Your task to perform on an android device: delete browsing data in the chrome app Image 0: 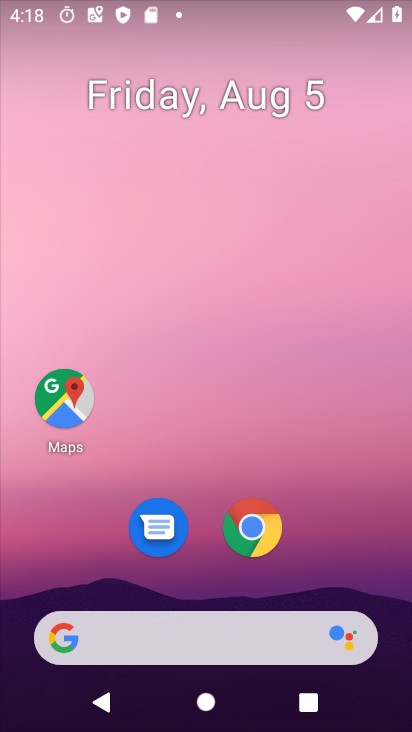
Step 0: click (257, 525)
Your task to perform on an android device: delete browsing data in the chrome app Image 1: 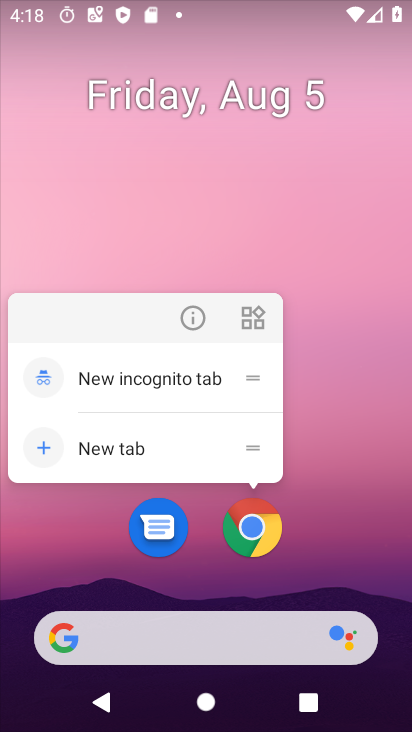
Step 1: click (249, 519)
Your task to perform on an android device: delete browsing data in the chrome app Image 2: 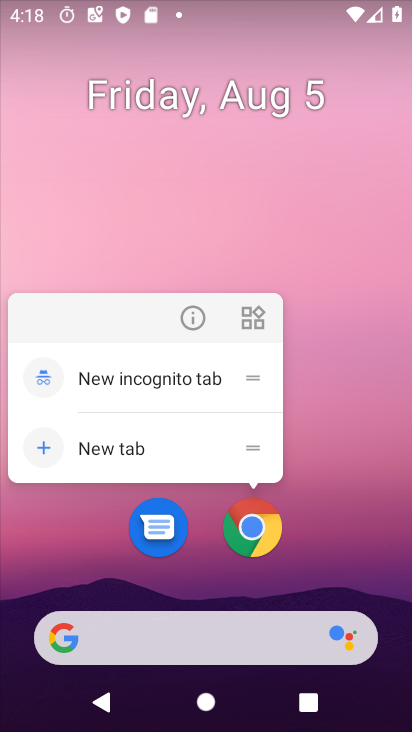
Step 2: click (251, 513)
Your task to perform on an android device: delete browsing data in the chrome app Image 3: 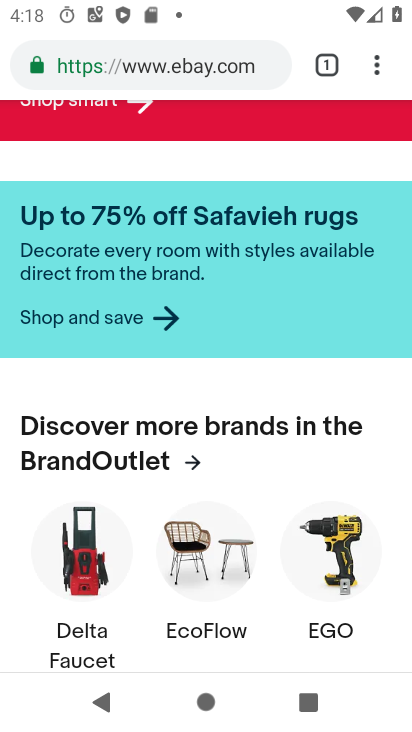
Step 3: click (376, 56)
Your task to perform on an android device: delete browsing data in the chrome app Image 4: 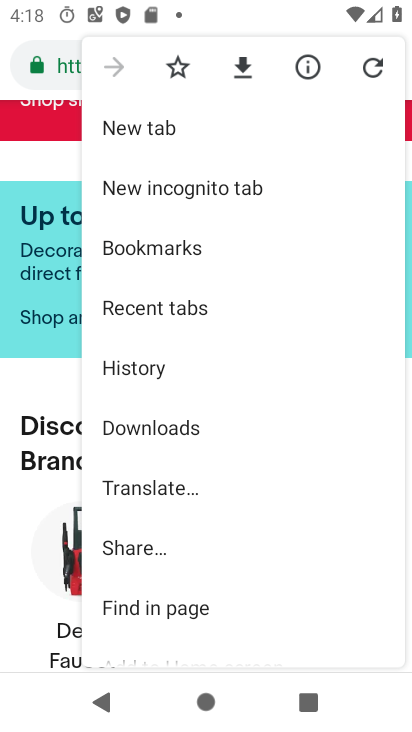
Step 4: click (181, 368)
Your task to perform on an android device: delete browsing data in the chrome app Image 5: 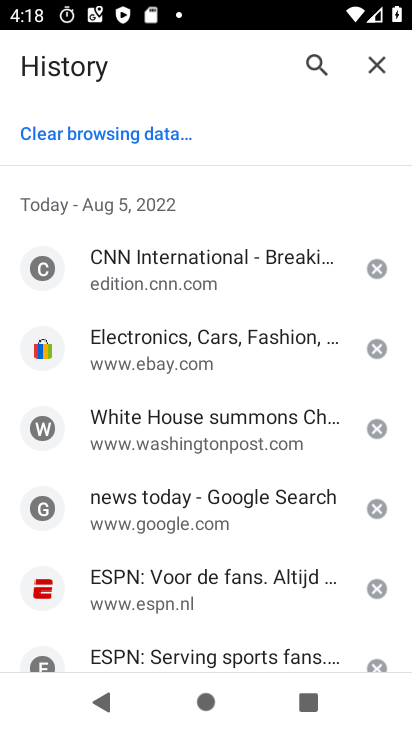
Step 5: click (137, 138)
Your task to perform on an android device: delete browsing data in the chrome app Image 6: 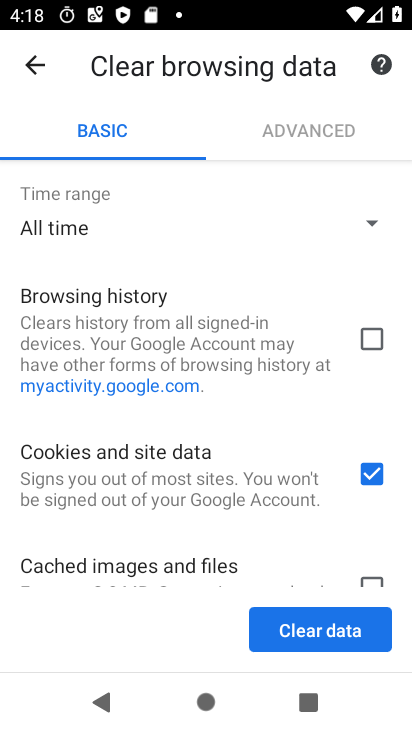
Step 6: click (374, 334)
Your task to perform on an android device: delete browsing data in the chrome app Image 7: 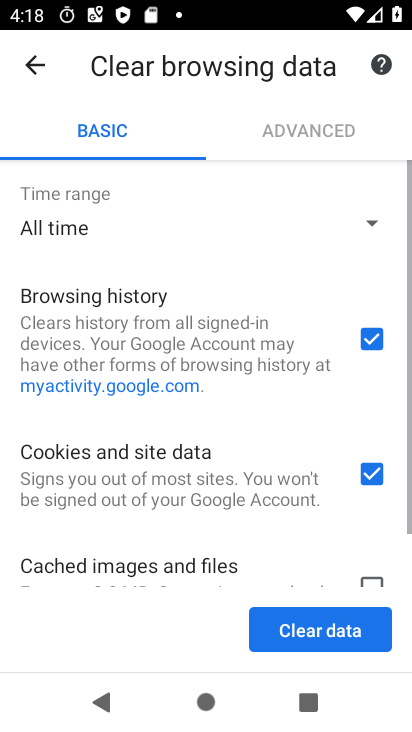
Step 7: click (364, 473)
Your task to perform on an android device: delete browsing data in the chrome app Image 8: 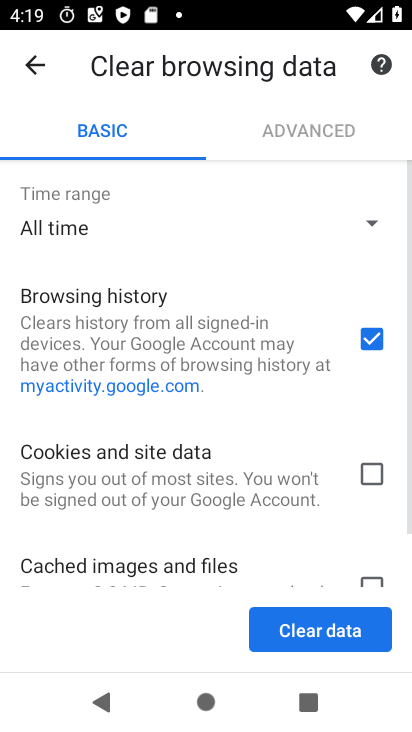
Step 8: click (326, 624)
Your task to perform on an android device: delete browsing data in the chrome app Image 9: 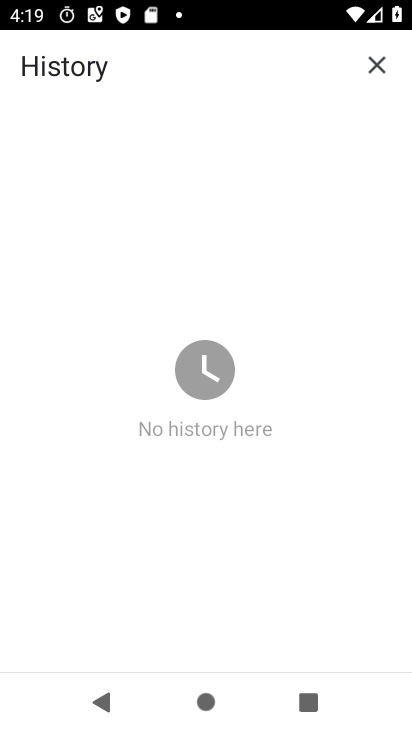
Step 9: task complete